Your task to perform on an android device: find which apps use the phone's location Image 0: 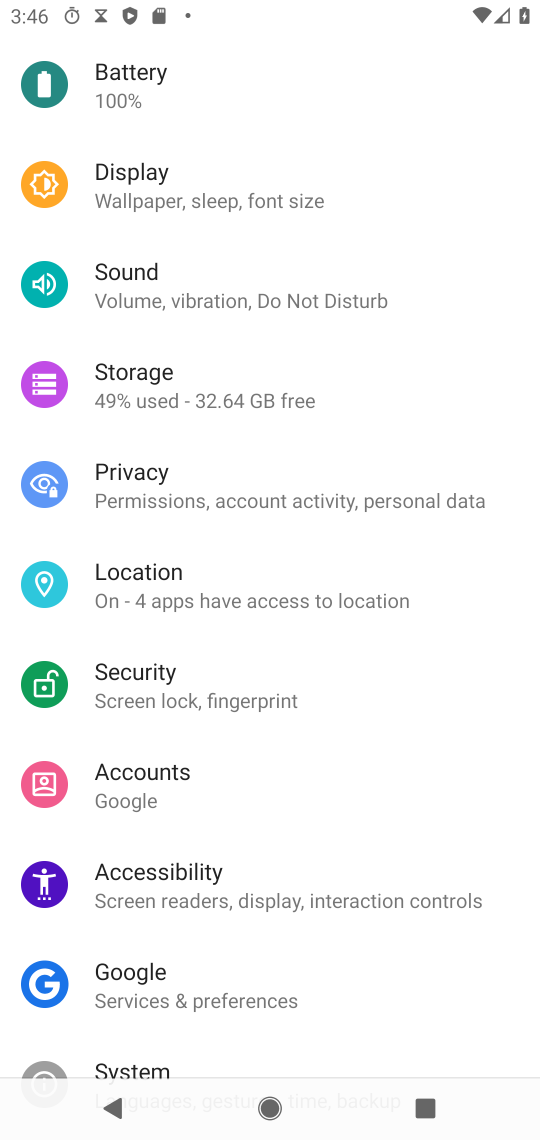
Step 0: click (129, 588)
Your task to perform on an android device: find which apps use the phone's location Image 1: 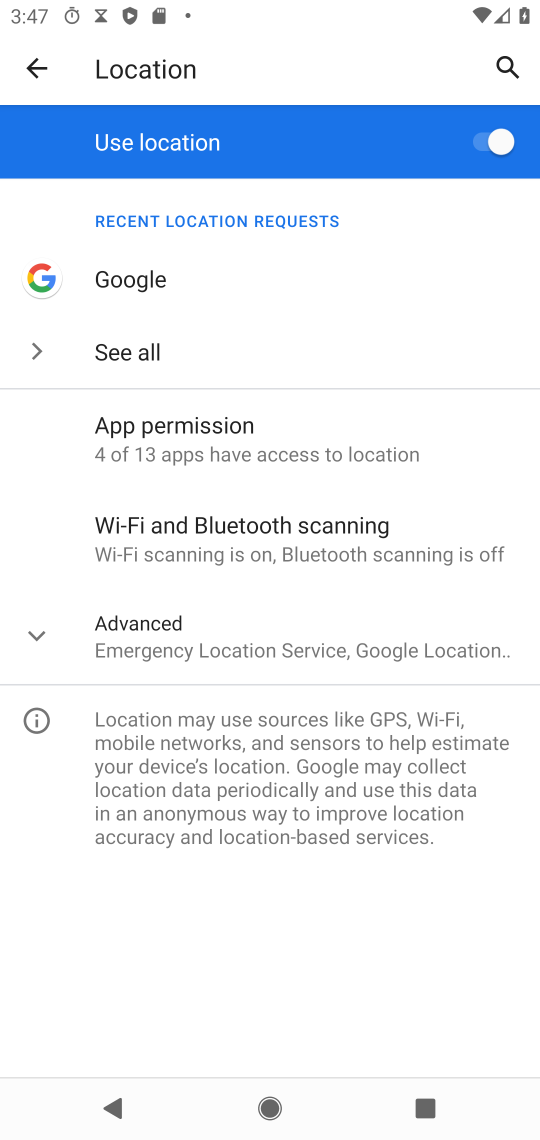
Step 1: click (149, 455)
Your task to perform on an android device: find which apps use the phone's location Image 2: 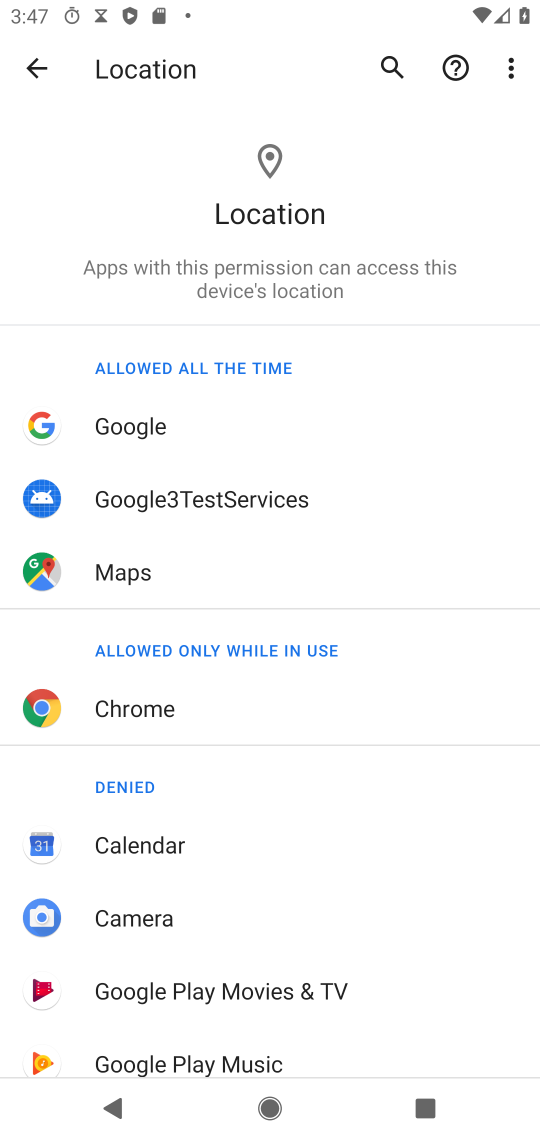
Step 2: task complete